Your task to perform on an android device: Go to Android settings Image 0: 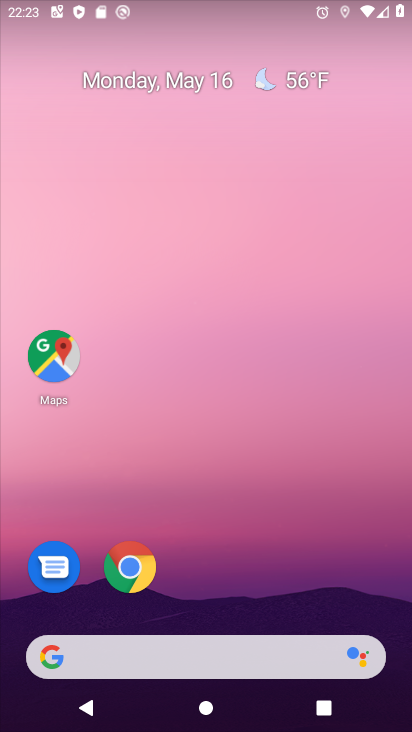
Step 0: drag from (267, 574) to (224, 147)
Your task to perform on an android device: Go to Android settings Image 1: 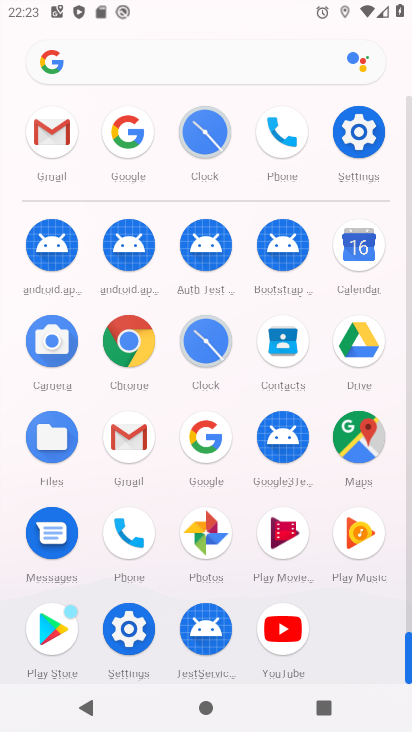
Step 1: click (356, 121)
Your task to perform on an android device: Go to Android settings Image 2: 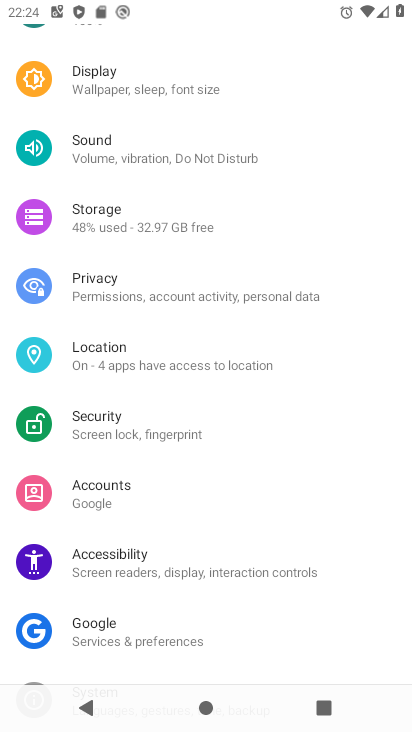
Step 2: task complete